Your task to perform on an android device: Open the map Image 0: 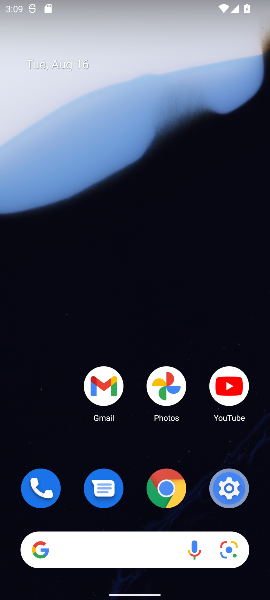
Step 0: drag from (68, 379) to (103, 57)
Your task to perform on an android device: Open the map Image 1: 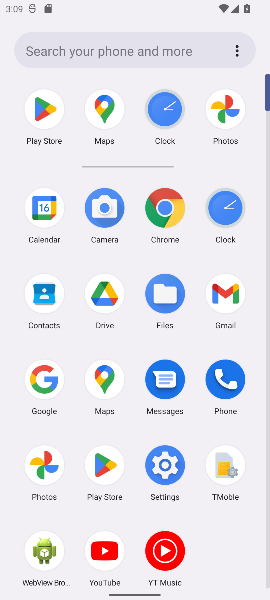
Step 1: click (96, 383)
Your task to perform on an android device: Open the map Image 2: 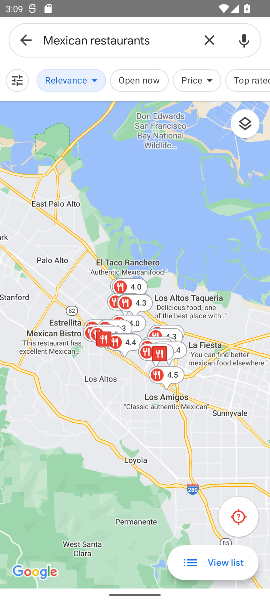
Step 2: press home button
Your task to perform on an android device: Open the map Image 3: 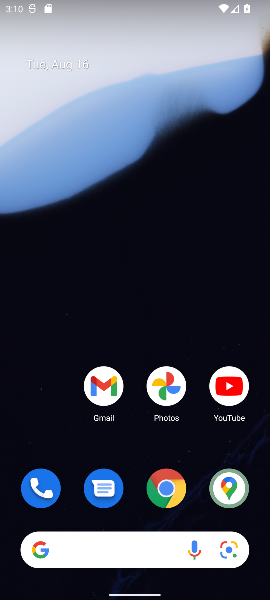
Step 3: click (222, 481)
Your task to perform on an android device: Open the map Image 4: 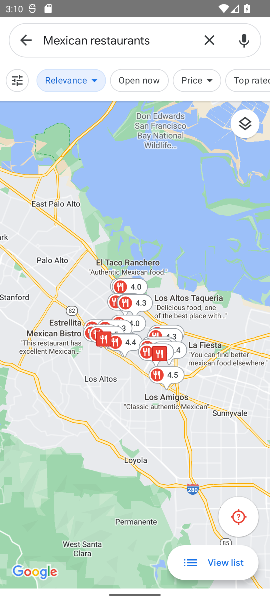
Step 4: task complete